Your task to perform on an android device: set an alarm Image 0: 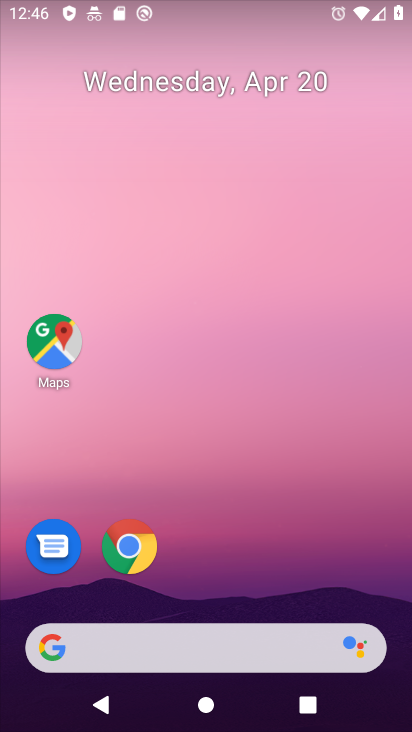
Step 0: drag from (263, 707) to (243, 1)
Your task to perform on an android device: set an alarm Image 1: 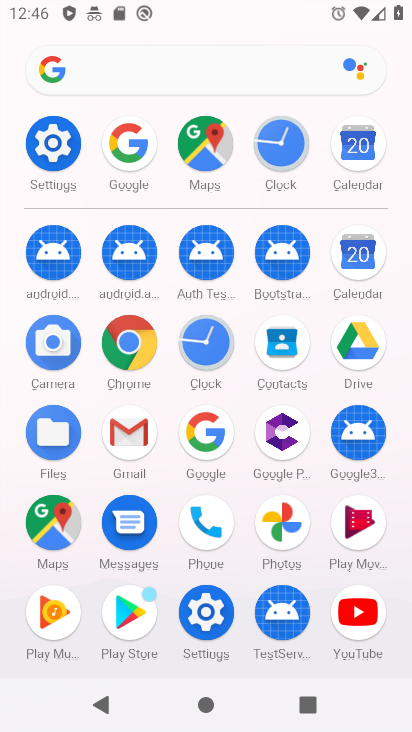
Step 1: click (281, 150)
Your task to perform on an android device: set an alarm Image 2: 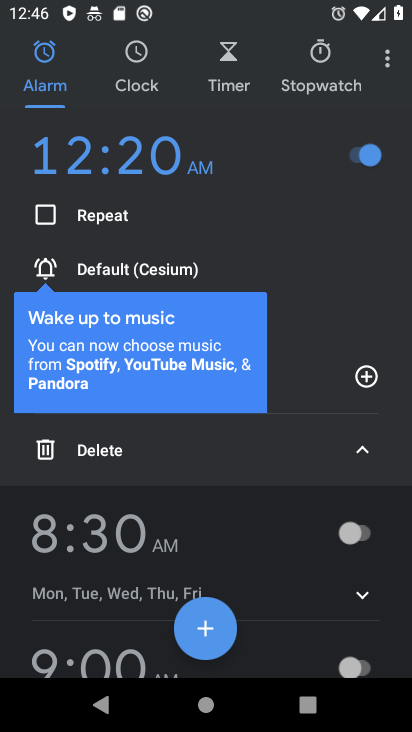
Step 2: click (210, 634)
Your task to perform on an android device: set an alarm Image 3: 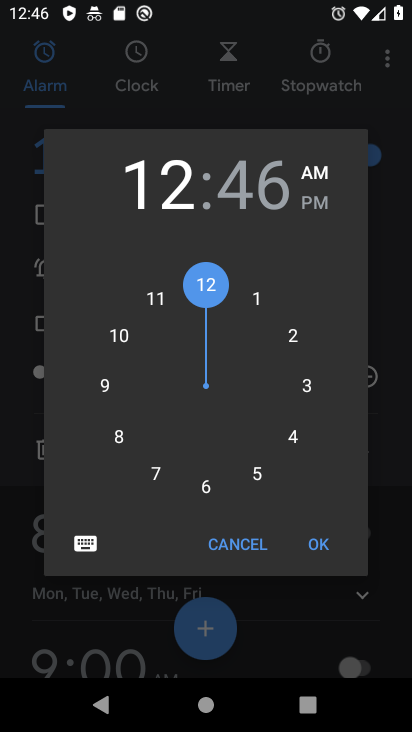
Step 3: click (326, 556)
Your task to perform on an android device: set an alarm Image 4: 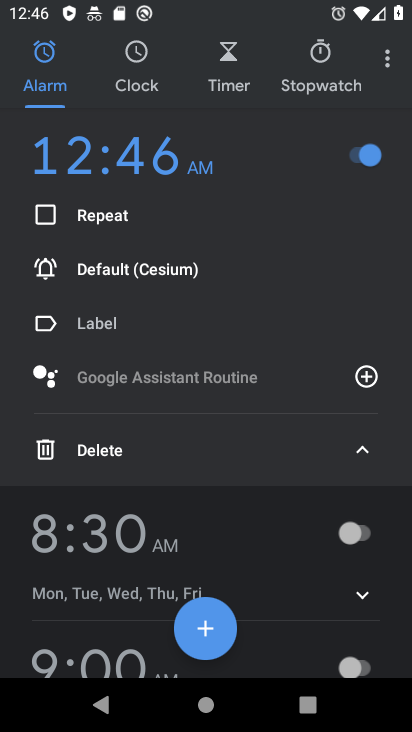
Step 4: task complete